Your task to perform on an android device: Open Android settings Image 0: 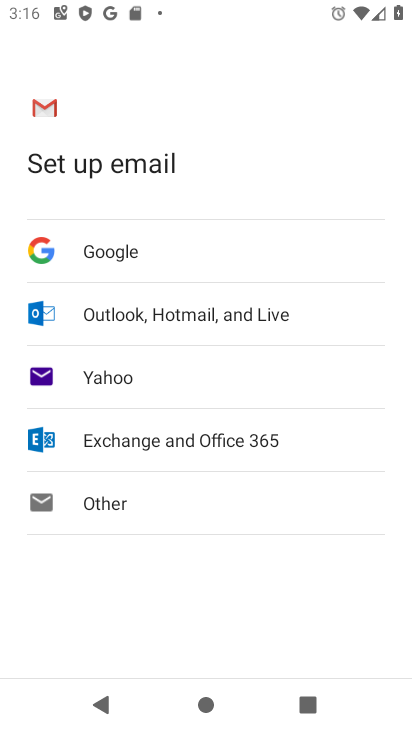
Step 0: press home button
Your task to perform on an android device: Open Android settings Image 1: 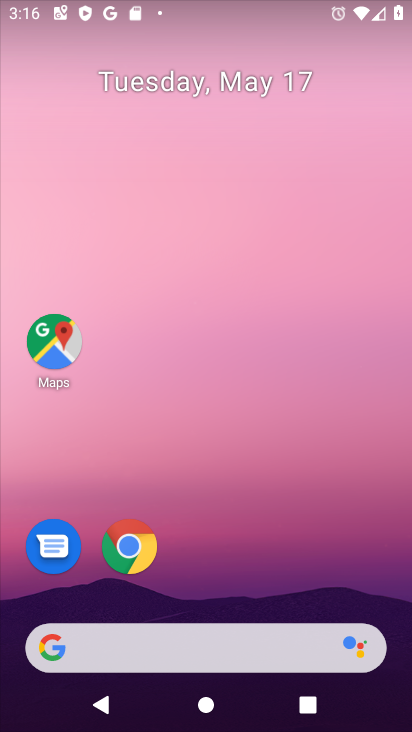
Step 1: drag from (399, 574) to (388, 415)
Your task to perform on an android device: Open Android settings Image 2: 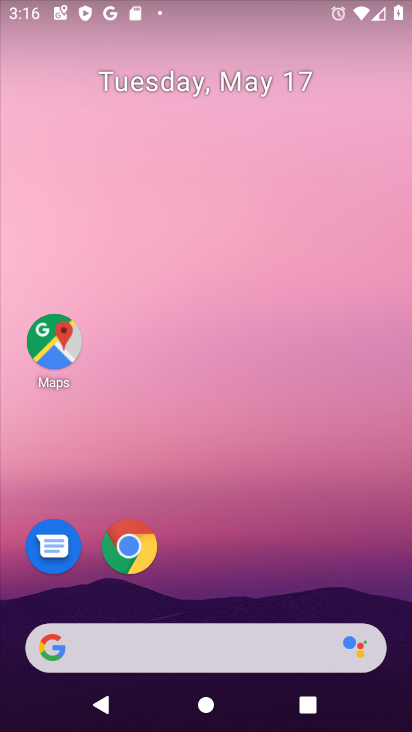
Step 2: drag from (397, 670) to (402, 391)
Your task to perform on an android device: Open Android settings Image 3: 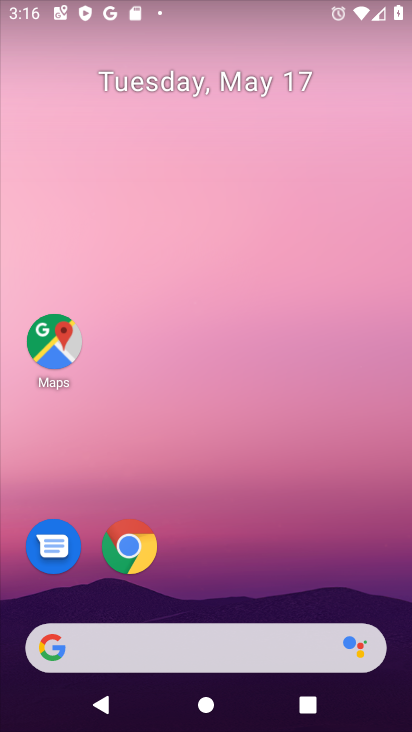
Step 3: drag from (401, 323) to (387, 218)
Your task to perform on an android device: Open Android settings Image 4: 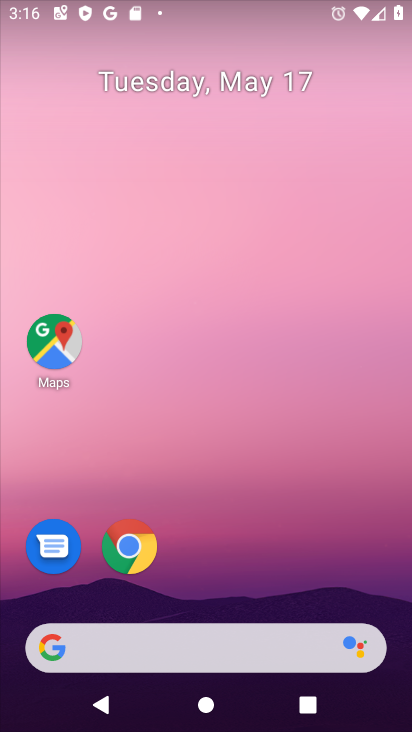
Step 4: drag from (399, 555) to (392, 265)
Your task to perform on an android device: Open Android settings Image 5: 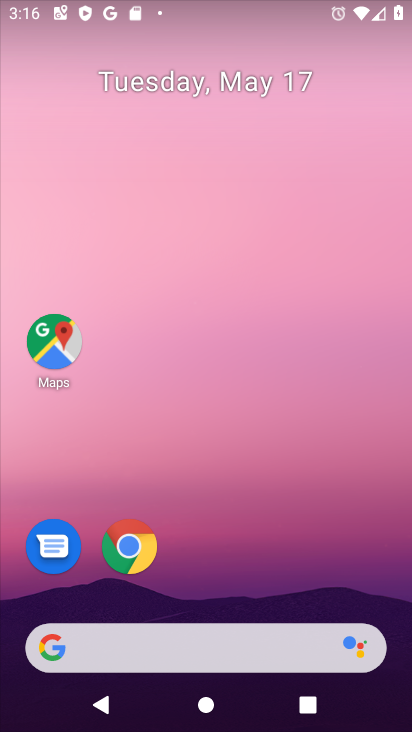
Step 5: drag from (398, 572) to (383, 257)
Your task to perform on an android device: Open Android settings Image 6: 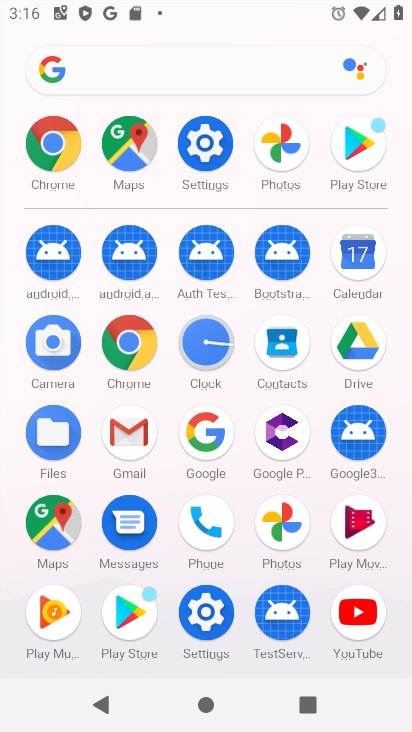
Step 6: click (219, 149)
Your task to perform on an android device: Open Android settings Image 7: 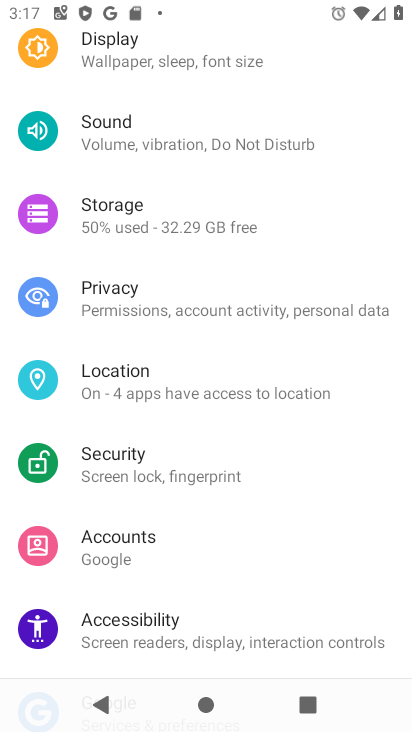
Step 7: task complete